Your task to perform on an android device: Search for Italian restaurants on Maps Image 0: 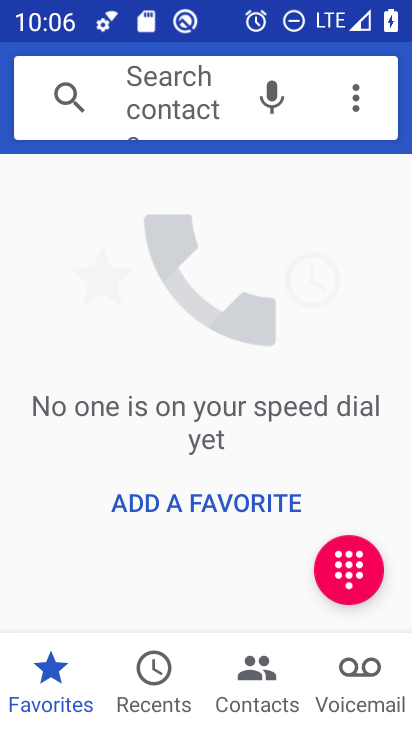
Step 0: press home button
Your task to perform on an android device: Search for Italian restaurants on Maps Image 1: 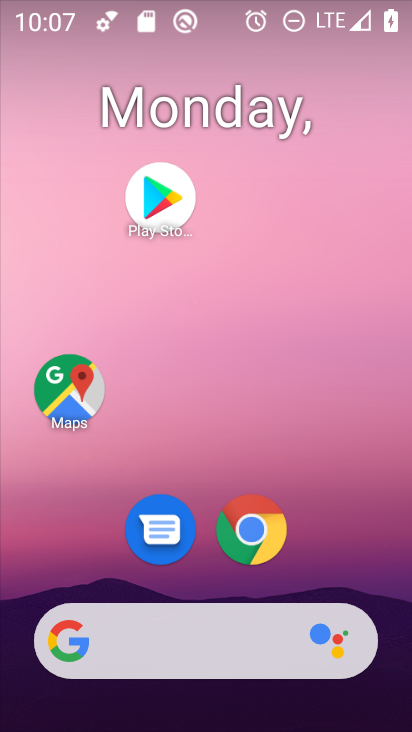
Step 1: click (61, 386)
Your task to perform on an android device: Search for Italian restaurants on Maps Image 2: 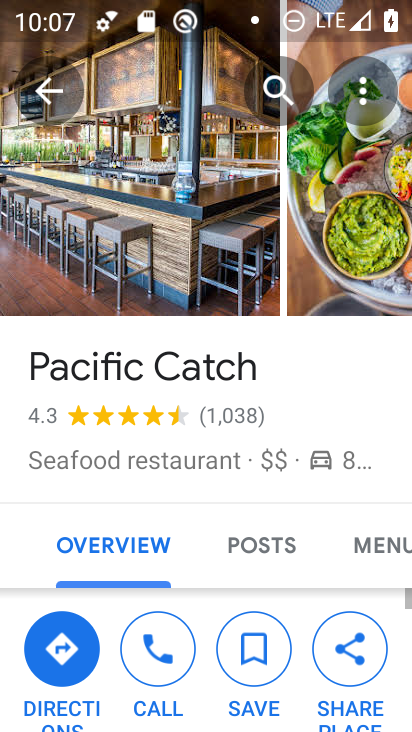
Step 2: click (64, 87)
Your task to perform on an android device: Search for Italian restaurants on Maps Image 3: 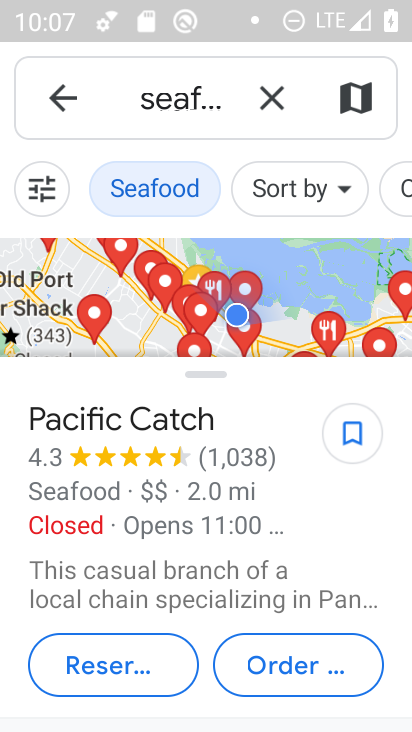
Step 3: click (280, 98)
Your task to perform on an android device: Search for Italian restaurants on Maps Image 4: 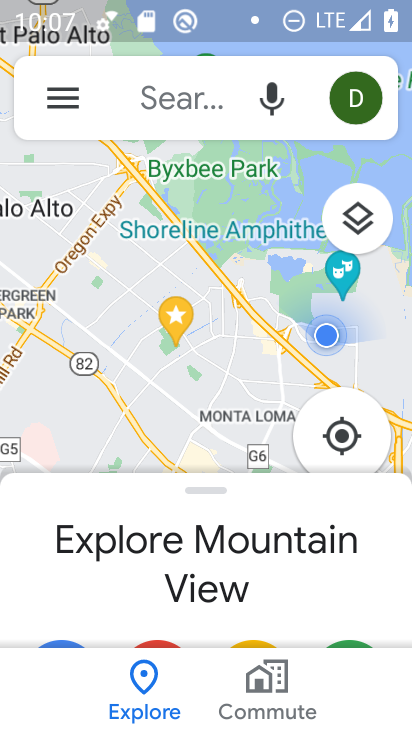
Step 4: click (180, 97)
Your task to perform on an android device: Search for Italian restaurants on Maps Image 5: 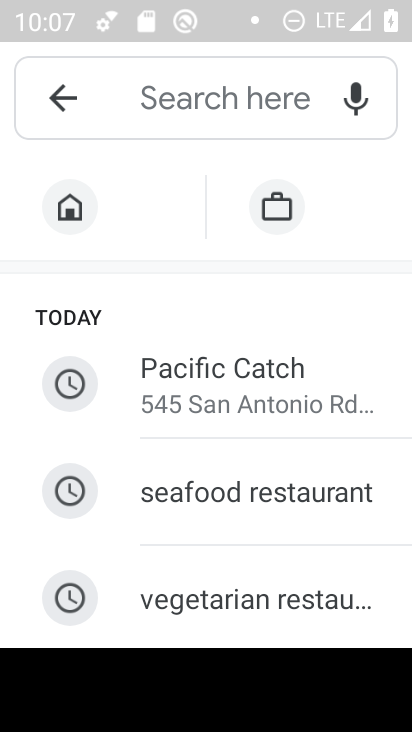
Step 5: type "italian "
Your task to perform on an android device: Search for Italian restaurants on Maps Image 6: 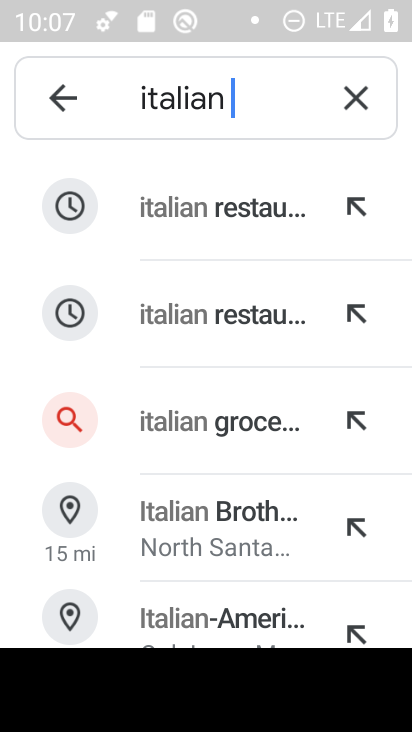
Step 6: click (210, 207)
Your task to perform on an android device: Search for Italian restaurants on Maps Image 7: 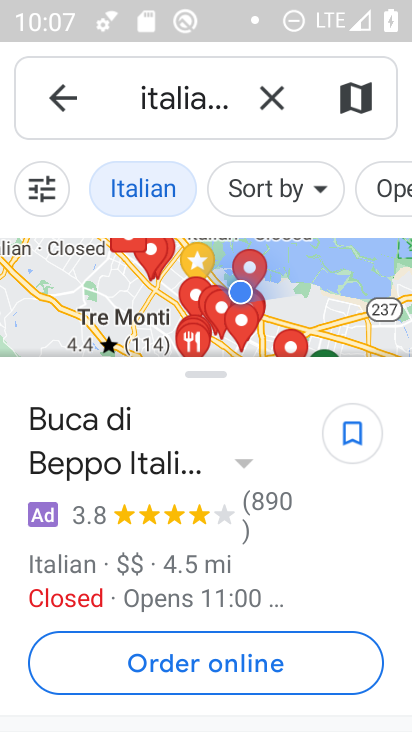
Step 7: task complete